Your task to perform on an android device: Open Amazon Image 0: 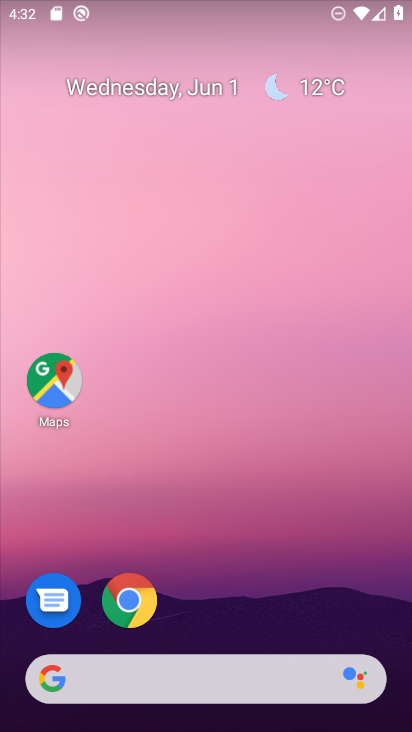
Step 0: click (132, 604)
Your task to perform on an android device: Open Amazon Image 1: 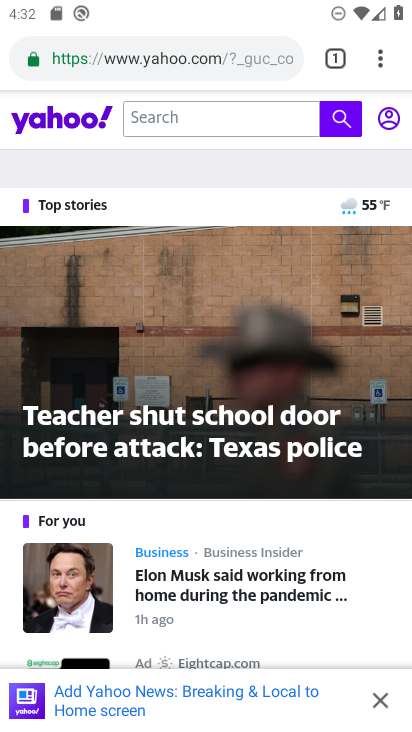
Step 1: click (284, 47)
Your task to perform on an android device: Open Amazon Image 2: 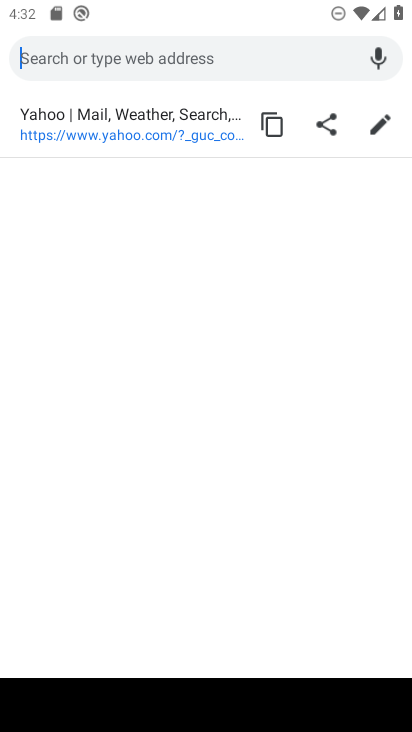
Step 2: type "amazon"
Your task to perform on an android device: Open Amazon Image 3: 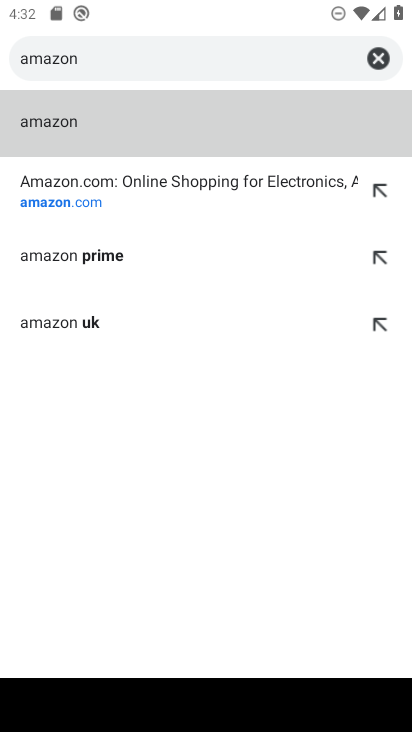
Step 3: click (63, 123)
Your task to perform on an android device: Open Amazon Image 4: 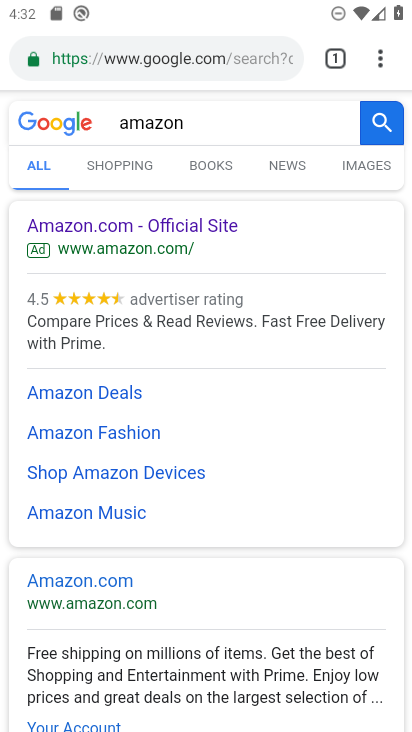
Step 4: click (84, 222)
Your task to perform on an android device: Open Amazon Image 5: 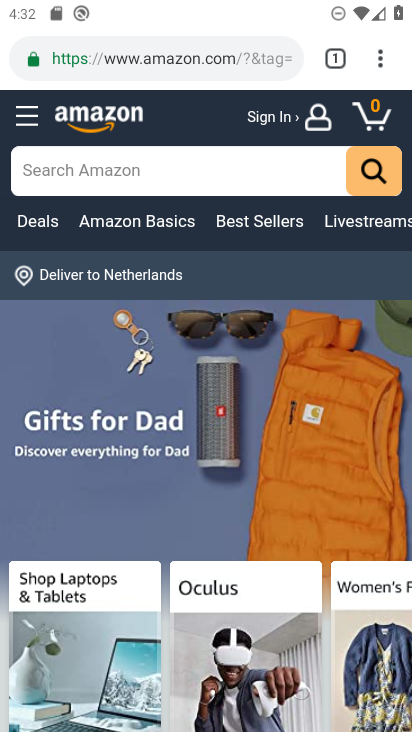
Step 5: task complete